Your task to perform on an android device: Search for pizza restaurants on Maps Image 0: 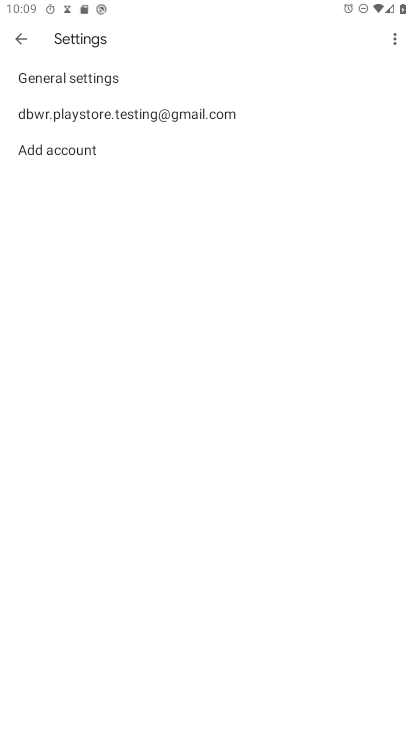
Step 0: press home button
Your task to perform on an android device: Search for pizza restaurants on Maps Image 1: 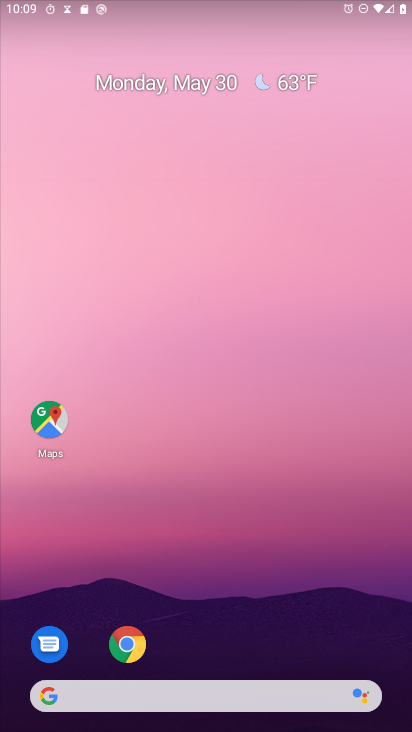
Step 1: drag from (182, 660) to (209, 13)
Your task to perform on an android device: Search for pizza restaurants on Maps Image 2: 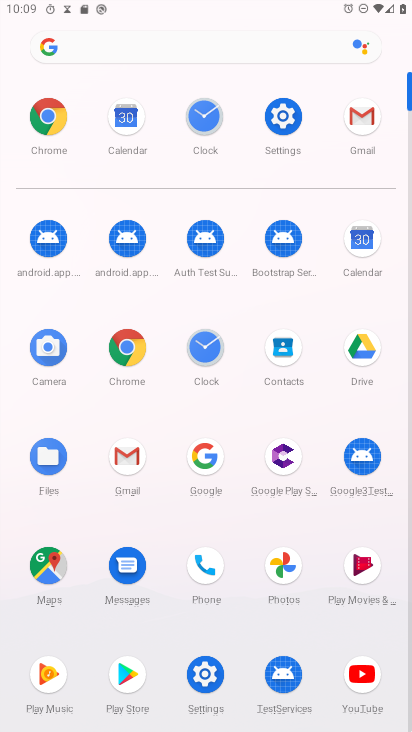
Step 2: click (50, 569)
Your task to perform on an android device: Search for pizza restaurants on Maps Image 3: 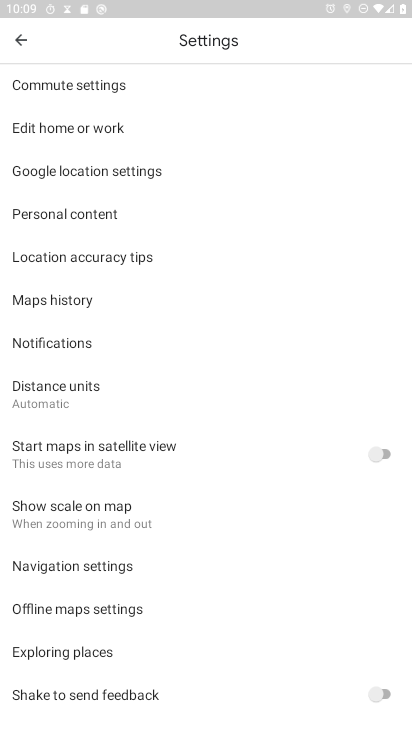
Step 3: press back button
Your task to perform on an android device: Search for pizza restaurants on Maps Image 4: 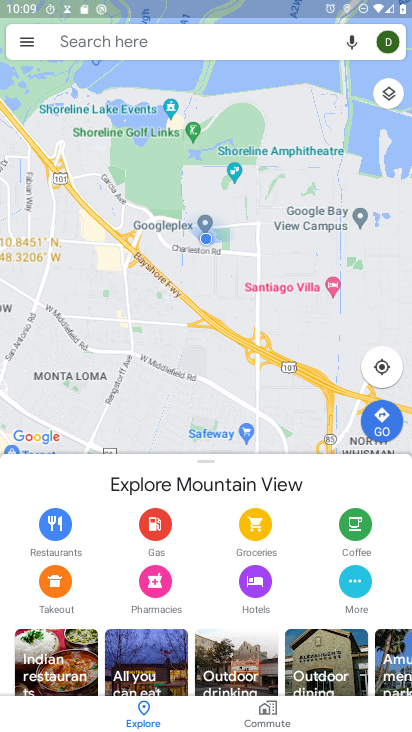
Step 4: click (146, 34)
Your task to perform on an android device: Search for pizza restaurants on Maps Image 5: 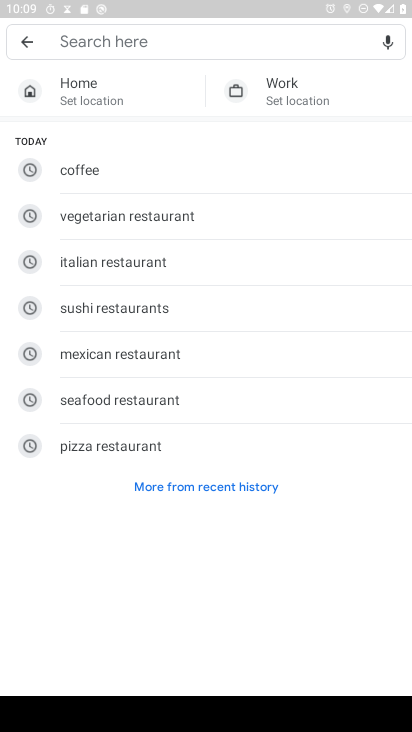
Step 5: click (92, 438)
Your task to perform on an android device: Search for pizza restaurants on Maps Image 6: 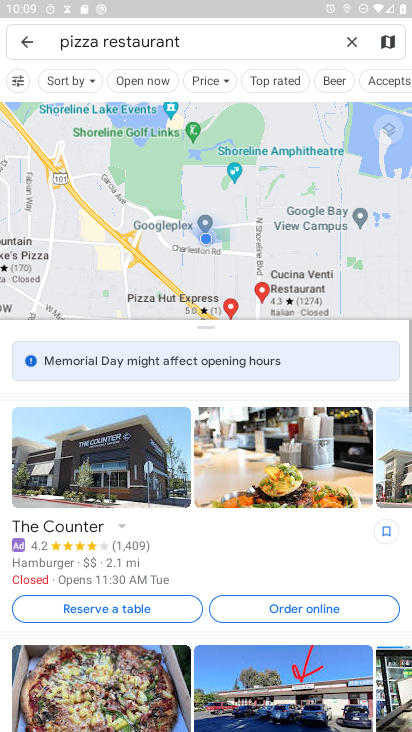
Step 6: task complete